Your task to perform on an android device: turn off airplane mode Image 0: 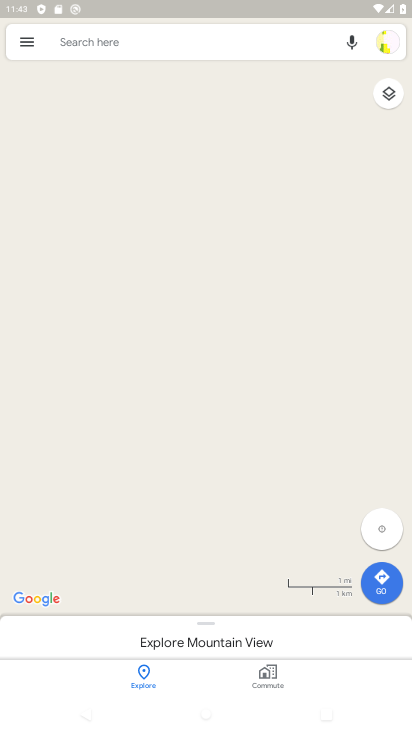
Step 0: press home button
Your task to perform on an android device: turn off airplane mode Image 1: 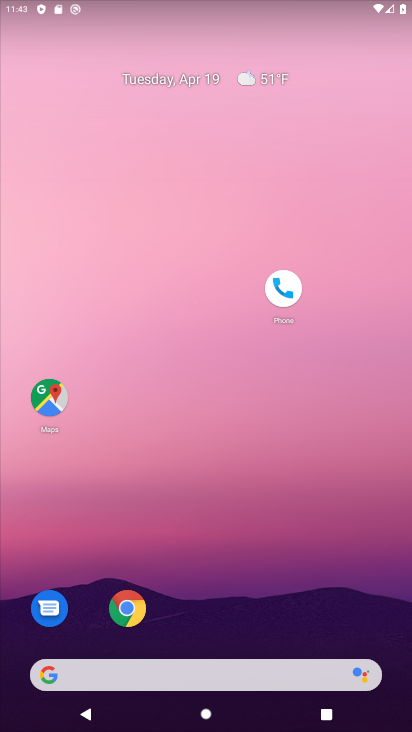
Step 1: drag from (218, 633) to (287, 264)
Your task to perform on an android device: turn off airplane mode Image 2: 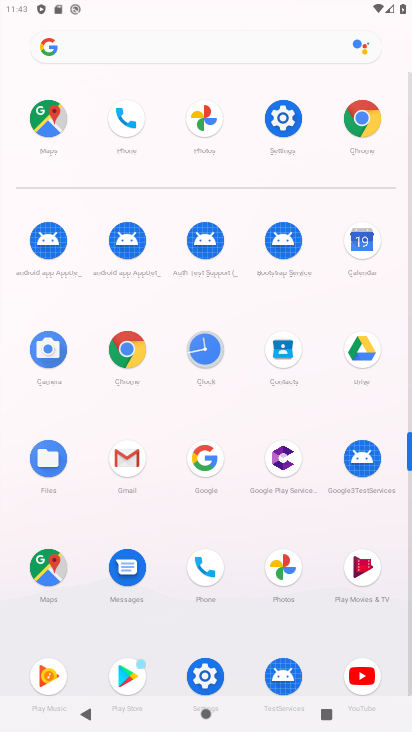
Step 2: click (284, 115)
Your task to perform on an android device: turn off airplane mode Image 3: 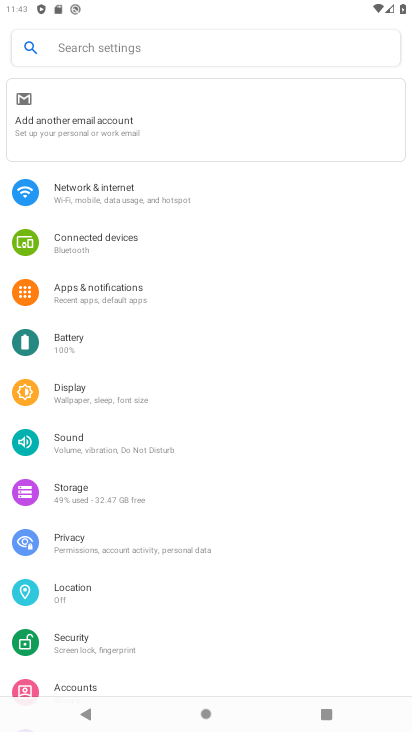
Step 3: click (143, 203)
Your task to perform on an android device: turn off airplane mode Image 4: 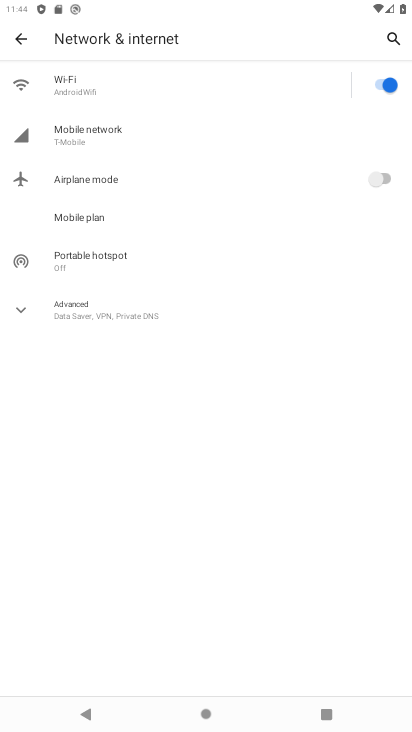
Step 4: task complete